Your task to perform on an android device: change the clock display to show seconds Image 0: 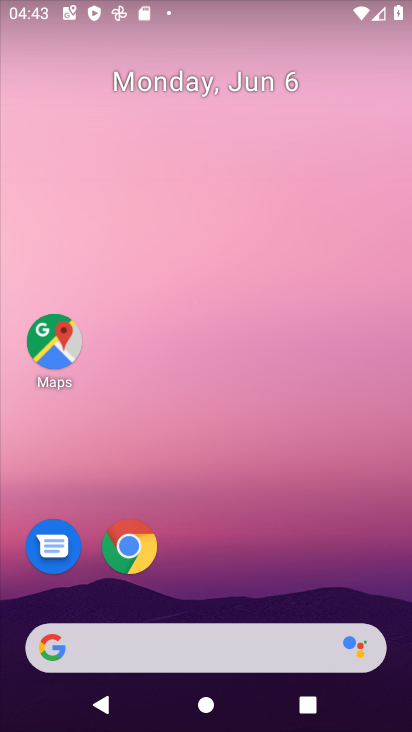
Step 0: drag from (327, 573) to (231, 0)
Your task to perform on an android device: change the clock display to show seconds Image 1: 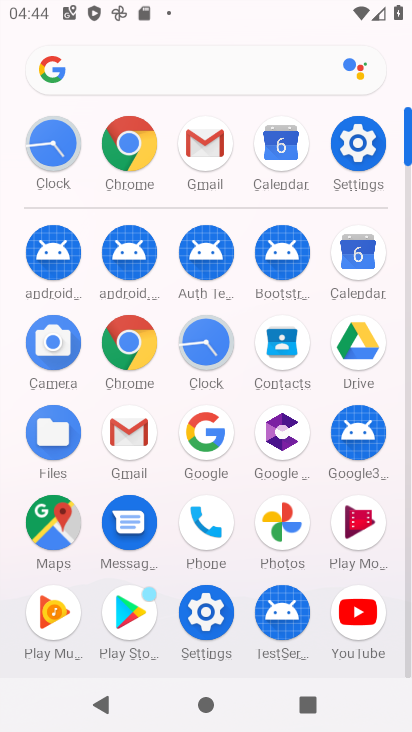
Step 1: click (67, 143)
Your task to perform on an android device: change the clock display to show seconds Image 2: 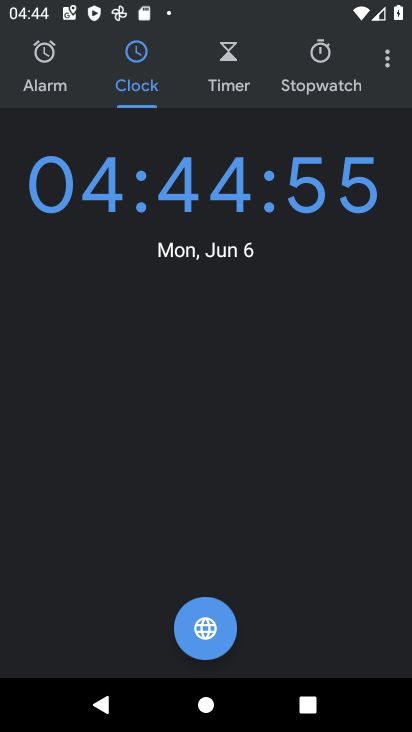
Step 2: click (378, 61)
Your task to perform on an android device: change the clock display to show seconds Image 3: 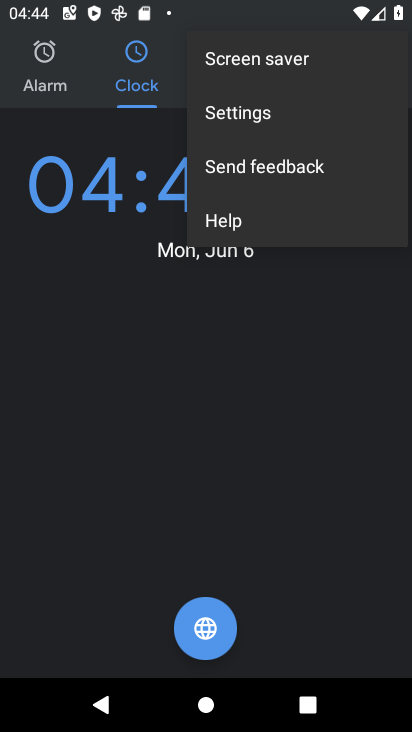
Step 3: click (275, 117)
Your task to perform on an android device: change the clock display to show seconds Image 4: 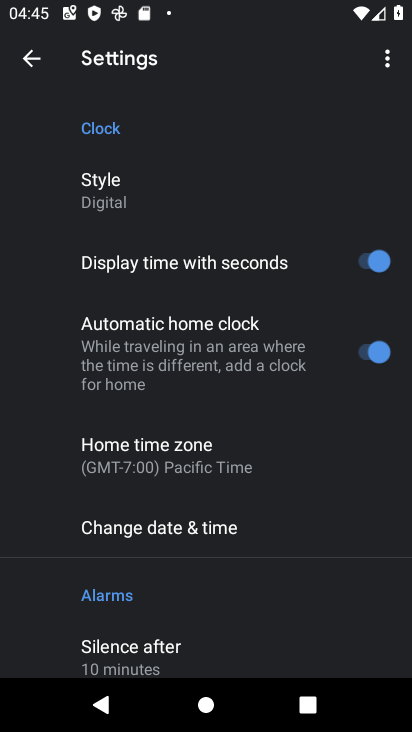
Step 4: task complete